Your task to perform on an android device: Open Yahoo.com Image 0: 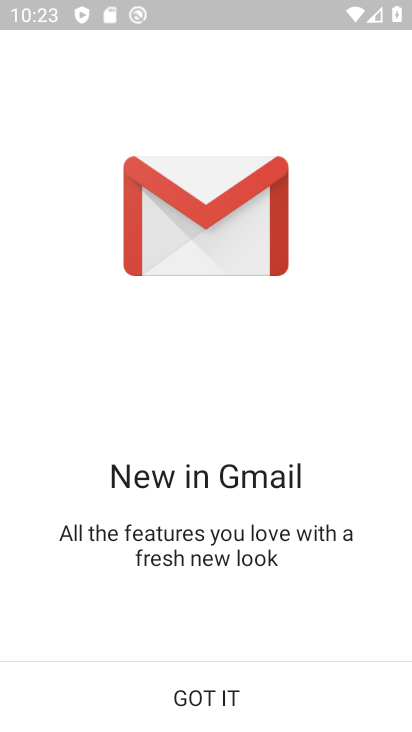
Step 0: press back button
Your task to perform on an android device: Open Yahoo.com Image 1: 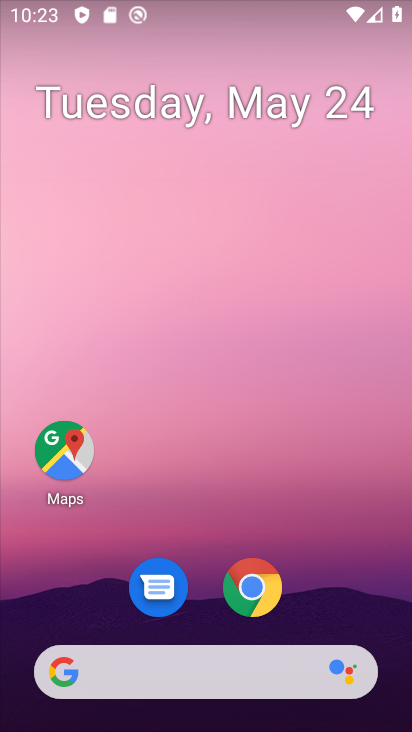
Step 1: drag from (324, 647) to (182, 66)
Your task to perform on an android device: Open Yahoo.com Image 2: 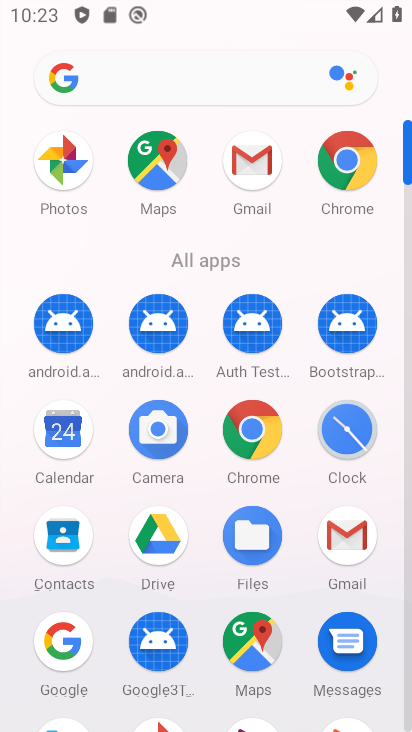
Step 2: drag from (294, 575) to (274, 140)
Your task to perform on an android device: Open Yahoo.com Image 3: 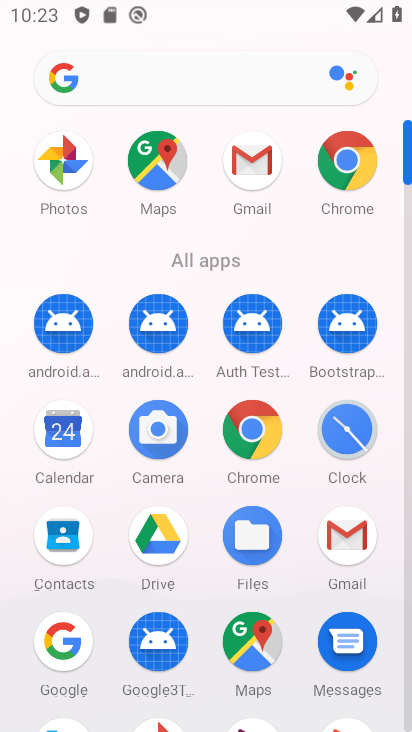
Step 3: drag from (308, 476) to (288, 158)
Your task to perform on an android device: Open Yahoo.com Image 4: 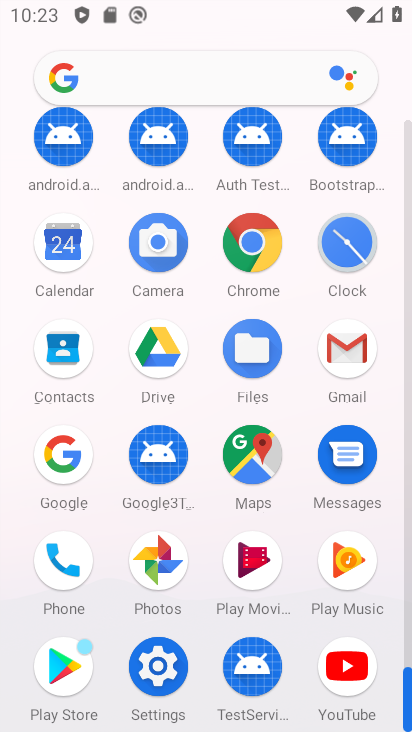
Step 4: click (253, 245)
Your task to perform on an android device: Open Yahoo.com Image 5: 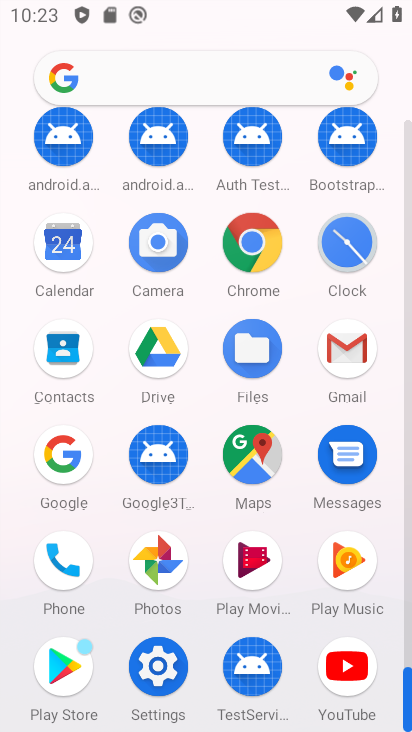
Step 5: click (253, 245)
Your task to perform on an android device: Open Yahoo.com Image 6: 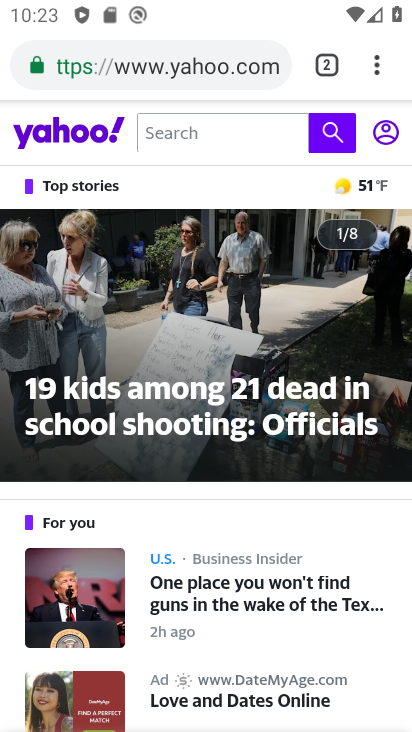
Step 6: task complete